Your task to perform on an android device: toggle notifications settings in the gmail app Image 0: 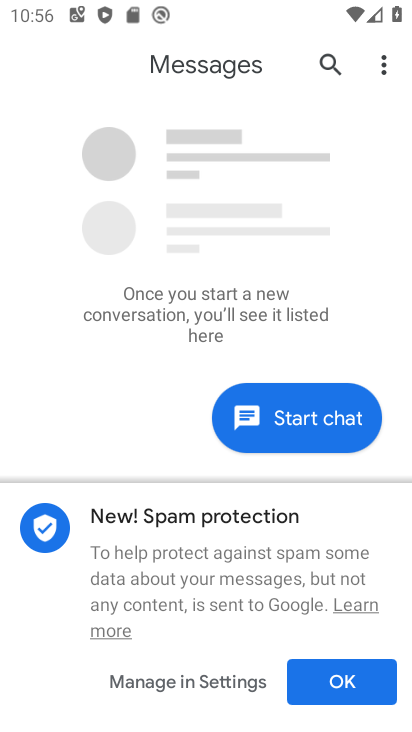
Step 0: press home button
Your task to perform on an android device: toggle notifications settings in the gmail app Image 1: 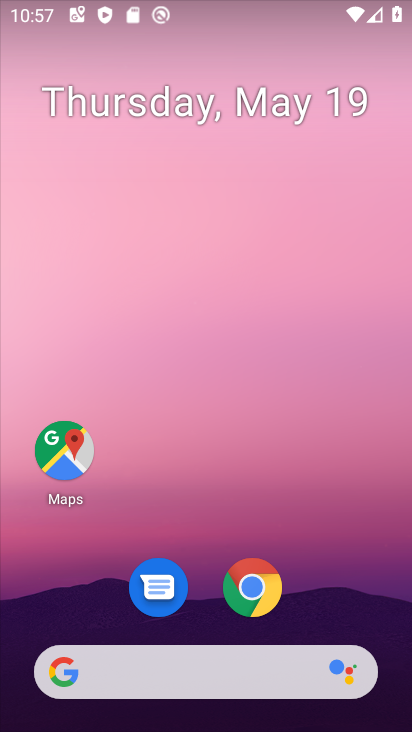
Step 1: drag from (256, 669) to (278, 34)
Your task to perform on an android device: toggle notifications settings in the gmail app Image 2: 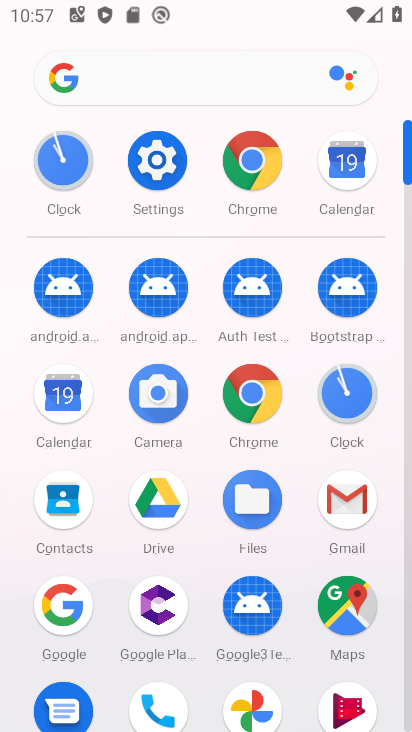
Step 2: click (358, 495)
Your task to perform on an android device: toggle notifications settings in the gmail app Image 3: 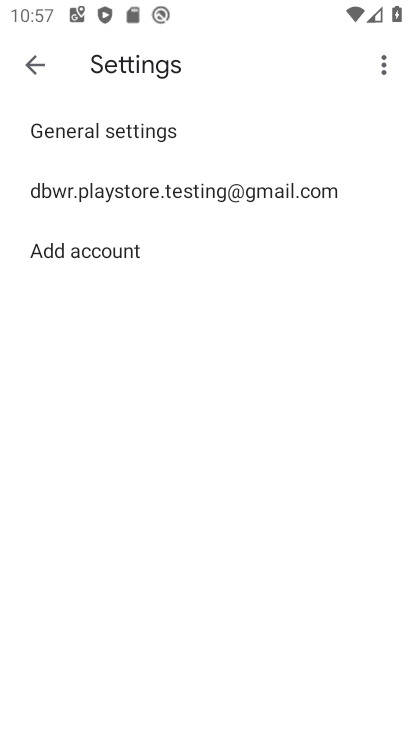
Step 3: click (75, 187)
Your task to perform on an android device: toggle notifications settings in the gmail app Image 4: 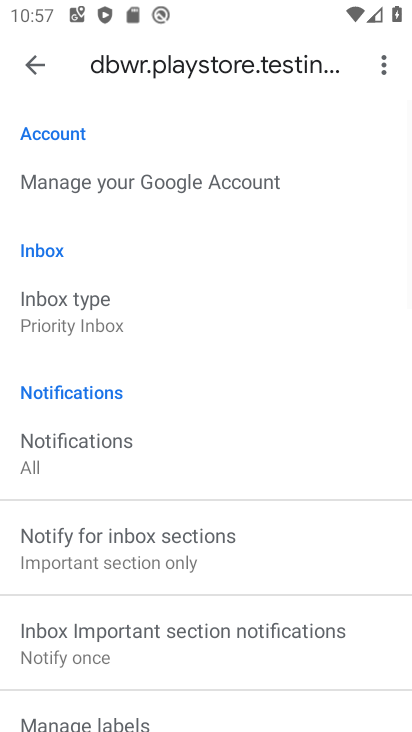
Step 4: drag from (129, 478) to (120, 107)
Your task to perform on an android device: toggle notifications settings in the gmail app Image 5: 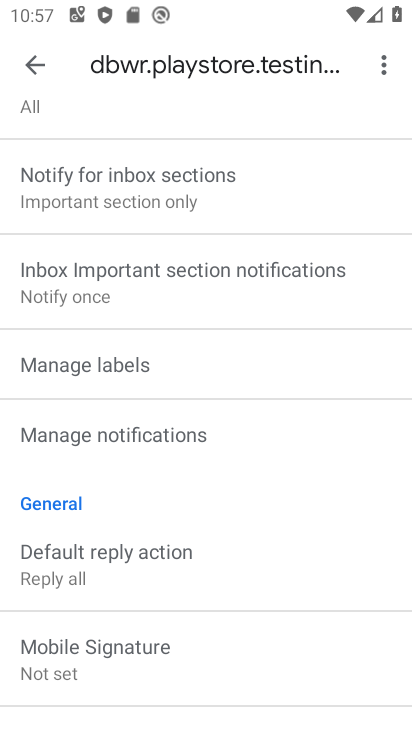
Step 5: click (117, 429)
Your task to perform on an android device: toggle notifications settings in the gmail app Image 6: 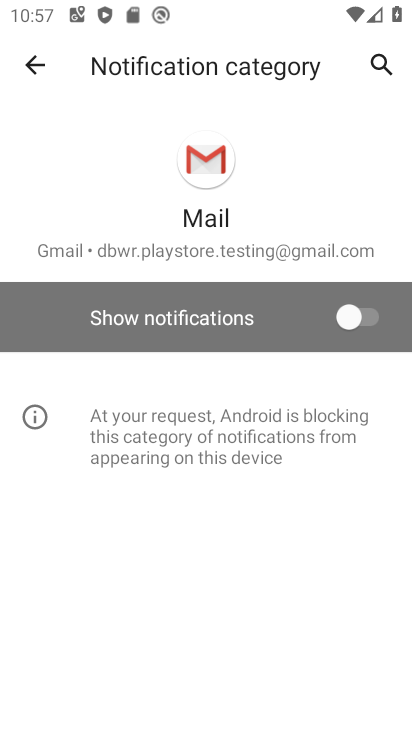
Step 6: click (347, 319)
Your task to perform on an android device: toggle notifications settings in the gmail app Image 7: 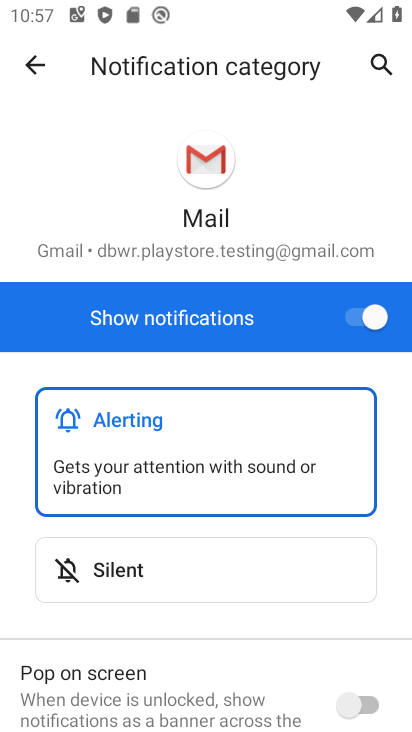
Step 7: task complete